Your task to perform on an android device: Is it going to rain tomorrow? Image 0: 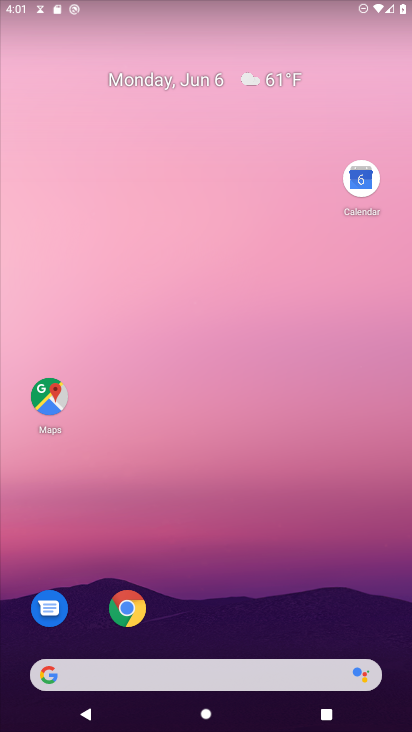
Step 0: click (132, 680)
Your task to perform on an android device: Is it going to rain tomorrow? Image 1: 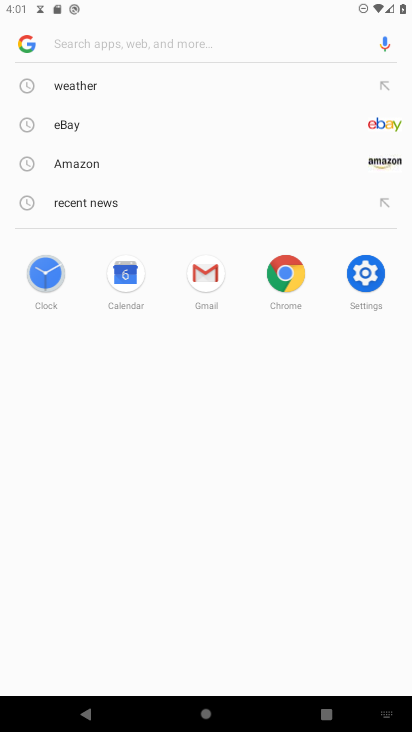
Step 1: type "is it going to rain tomorrow"
Your task to perform on an android device: Is it going to rain tomorrow? Image 2: 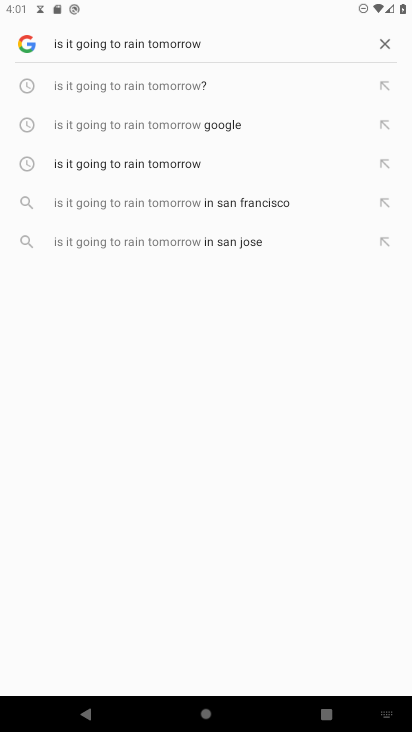
Step 2: click (206, 81)
Your task to perform on an android device: Is it going to rain tomorrow? Image 3: 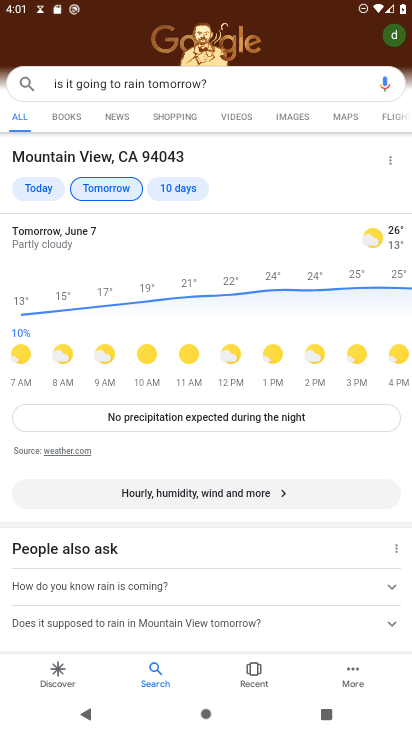
Step 3: task complete